Your task to perform on an android device: toggle improve location accuracy Image 0: 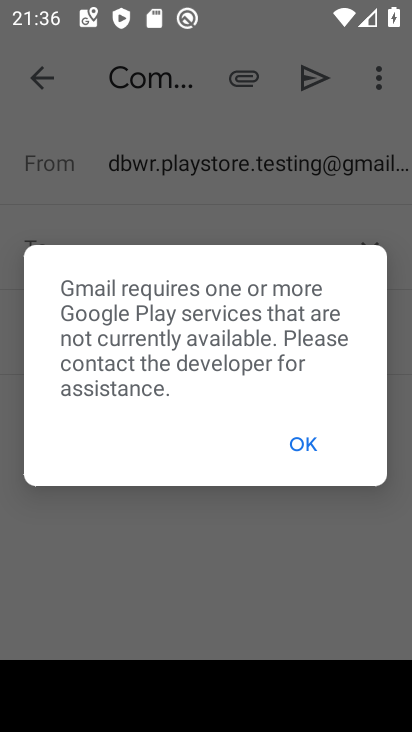
Step 0: click (303, 438)
Your task to perform on an android device: toggle improve location accuracy Image 1: 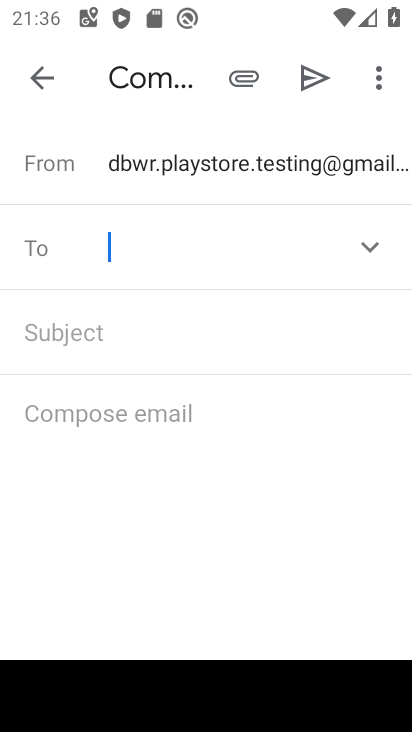
Step 1: press home button
Your task to perform on an android device: toggle improve location accuracy Image 2: 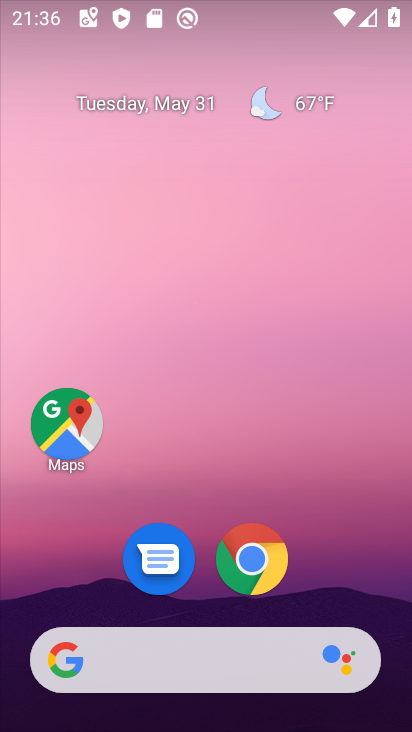
Step 2: drag from (295, 568) to (275, 73)
Your task to perform on an android device: toggle improve location accuracy Image 3: 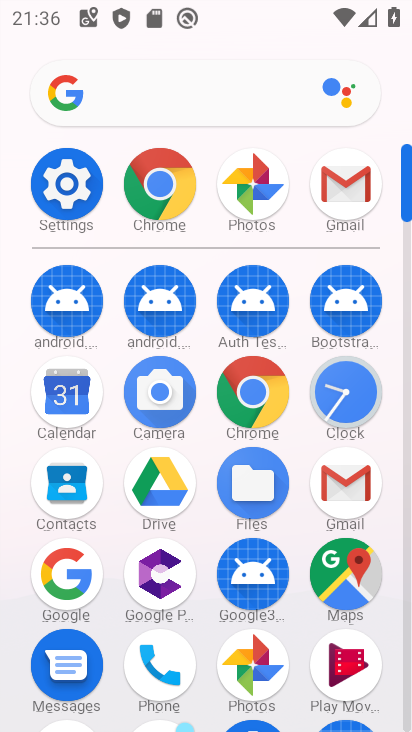
Step 3: click (61, 187)
Your task to perform on an android device: toggle improve location accuracy Image 4: 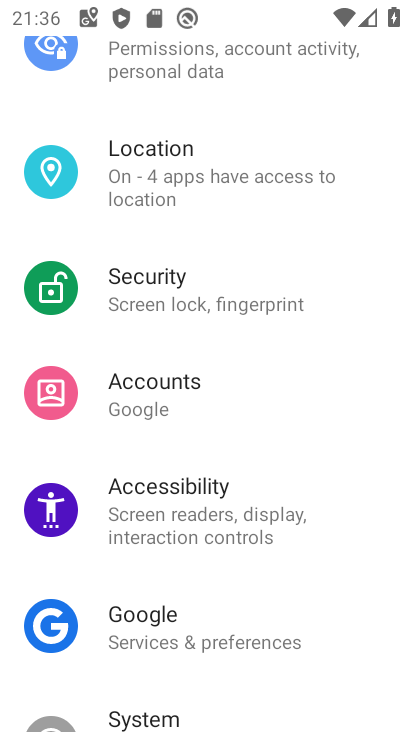
Step 4: click (184, 178)
Your task to perform on an android device: toggle improve location accuracy Image 5: 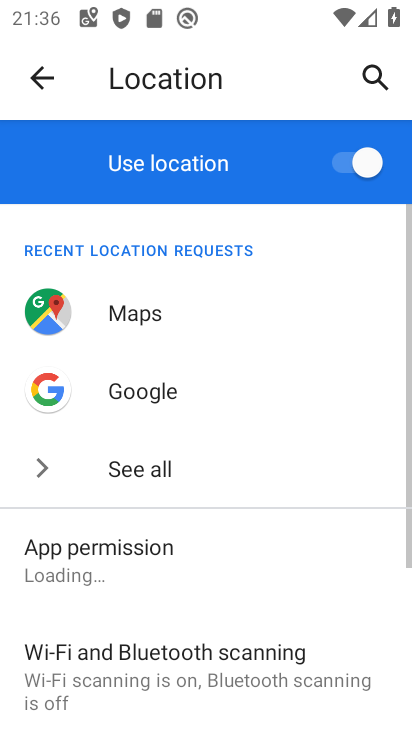
Step 5: drag from (105, 669) to (146, 235)
Your task to perform on an android device: toggle improve location accuracy Image 6: 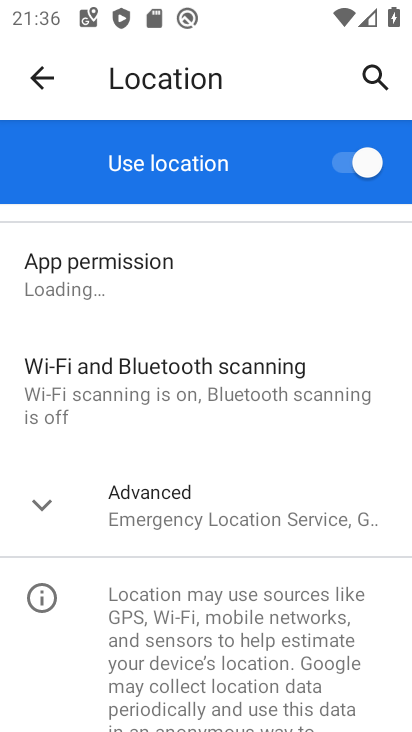
Step 6: click (109, 500)
Your task to perform on an android device: toggle improve location accuracy Image 7: 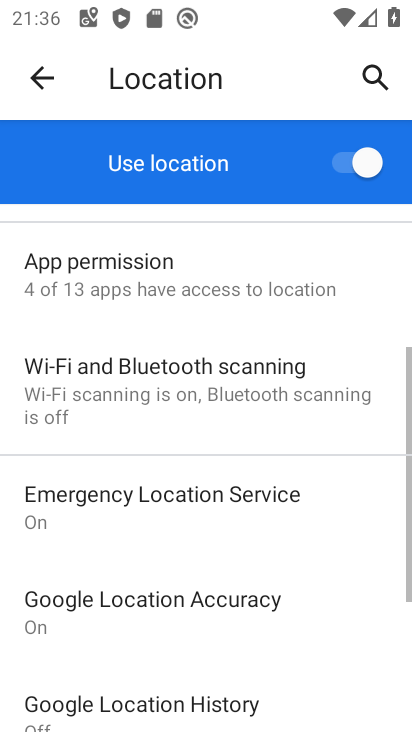
Step 7: click (180, 613)
Your task to perform on an android device: toggle improve location accuracy Image 8: 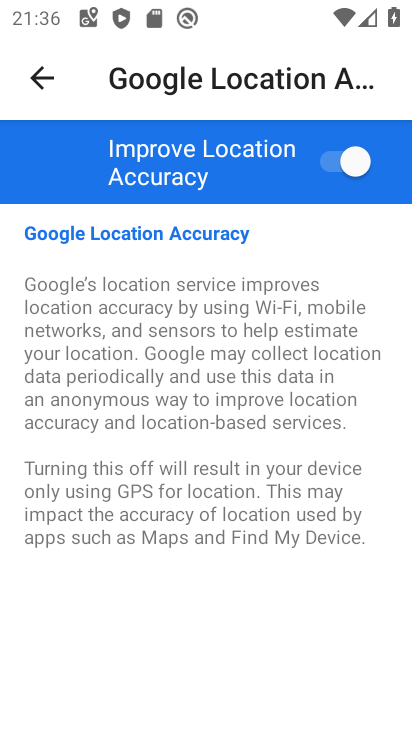
Step 8: click (346, 167)
Your task to perform on an android device: toggle improve location accuracy Image 9: 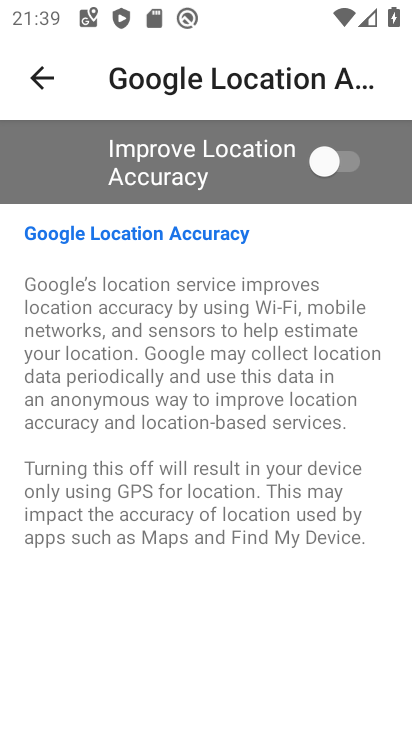
Step 9: task complete